Your task to perform on an android device: open a bookmark in the chrome app Image 0: 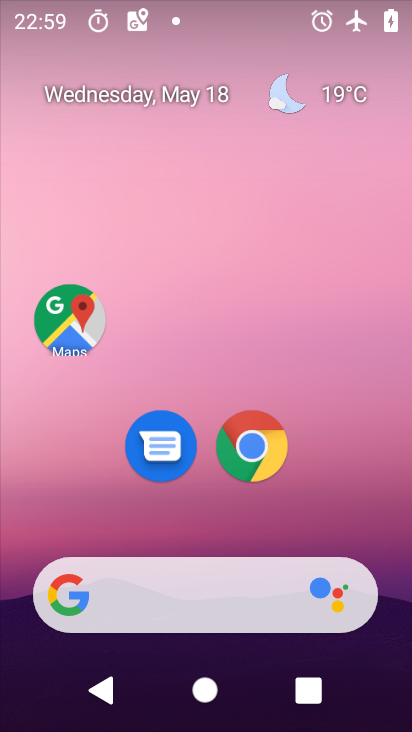
Step 0: press home button
Your task to perform on an android device: open a bookmark in the chrome app Image 1: 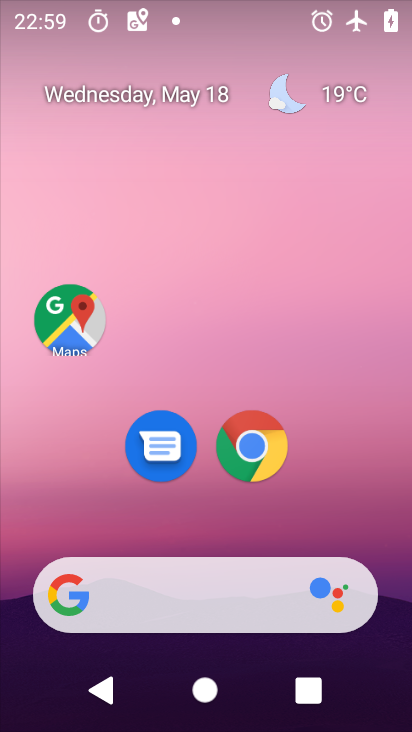
Step 1: click (249, 456)
Your task to perform on an android device: open a bookmark in the chrome app Image 2: 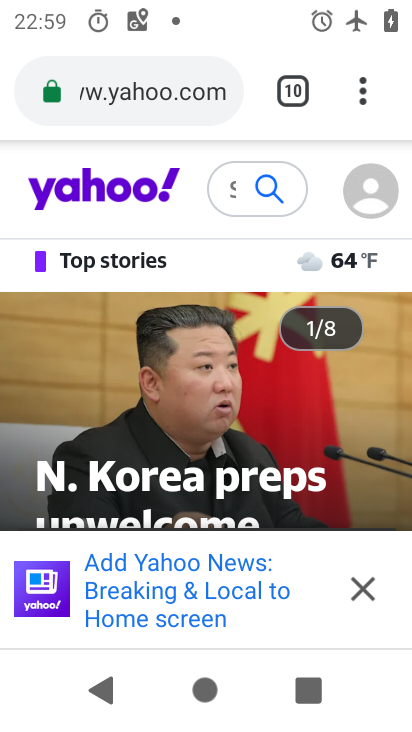
Step 2: task complete